Your task to perform on an android device: Go to ESPN.com Image 0: 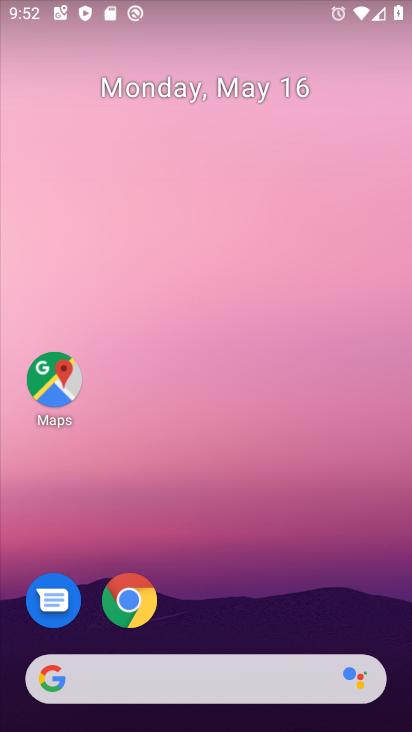
Step 0: click (288, 158)
Your task to perform on an android device: Go to ESPN.com Image 1: 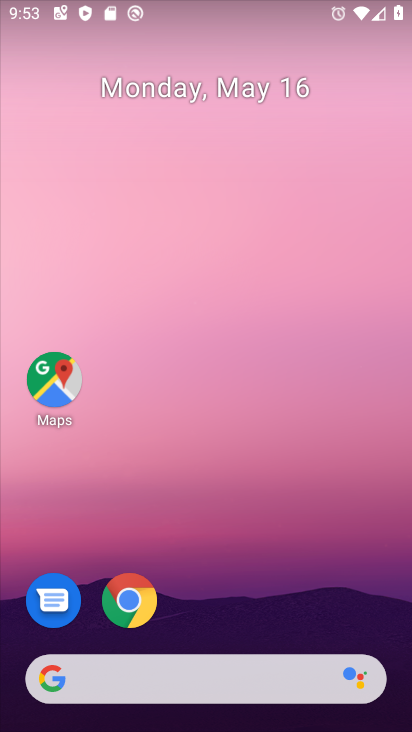
Step 1: click (187, 676)
Your task to perform on an android device: Go to ESPN.com Image 2: 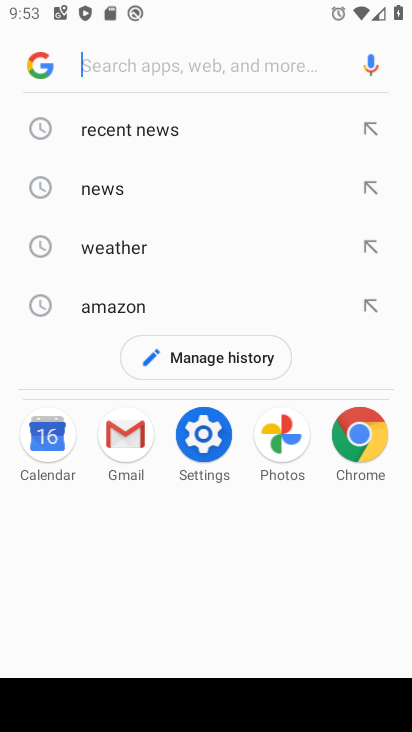
Step 2: click (184, 72)
Your task to perform on an android device: Go to ESPN.com Image 3: 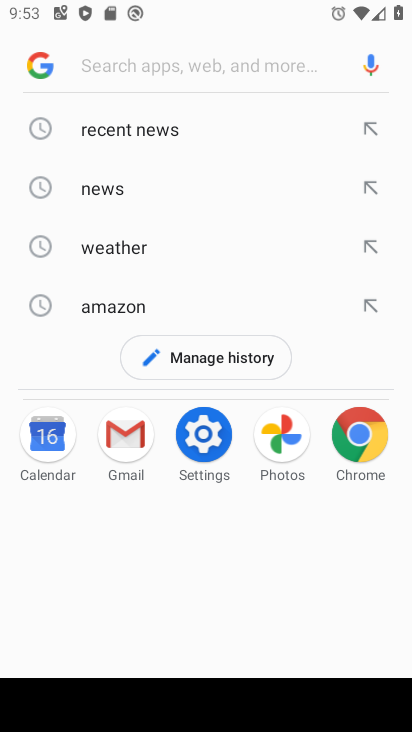
Step 3: type "espn"
Your task to perform on an android device: Go to ESPN.com Image 4: 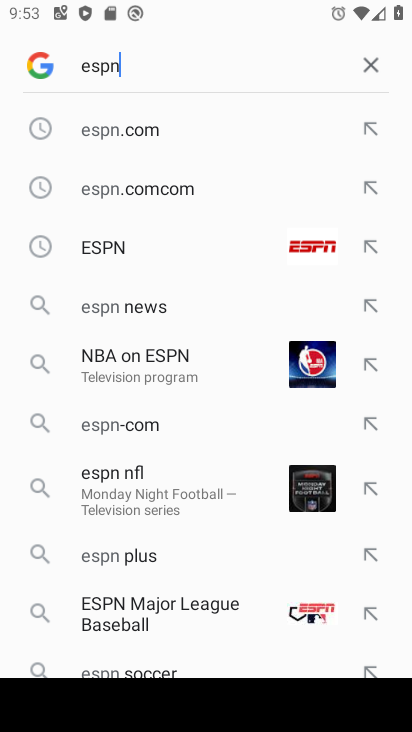
Step 4: click (186, 150)
Your task to perform on an android device: Go to ESPN.com Image 5: 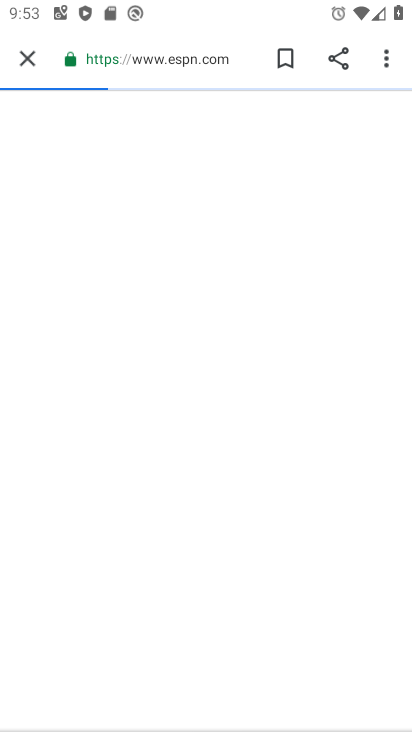
Step 5: task complete